Your task to perform on an android device: move an email to a new category in the gmail app Image 0: 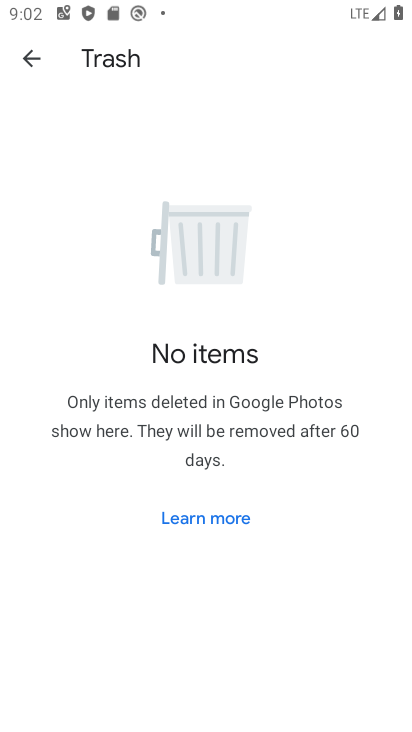
Step 0: press home button
Your task to perform on an android device: move an email to a new category in the gmail app Image 1: 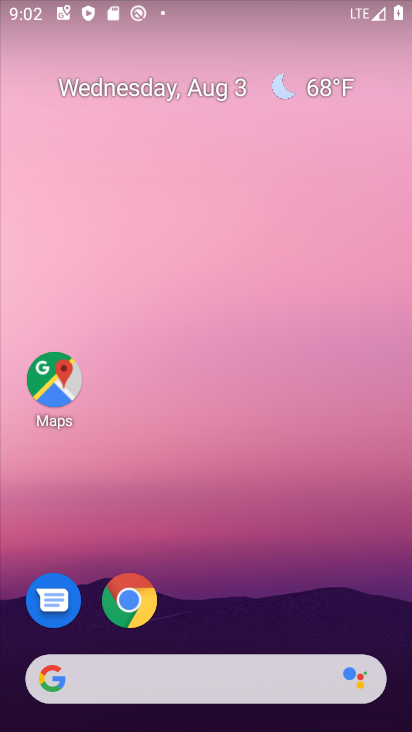
Step 1: drag from (203, 609) to (270, 16)
Your task to perform on an android device: move an email to a new category in the gmail app Image 2: 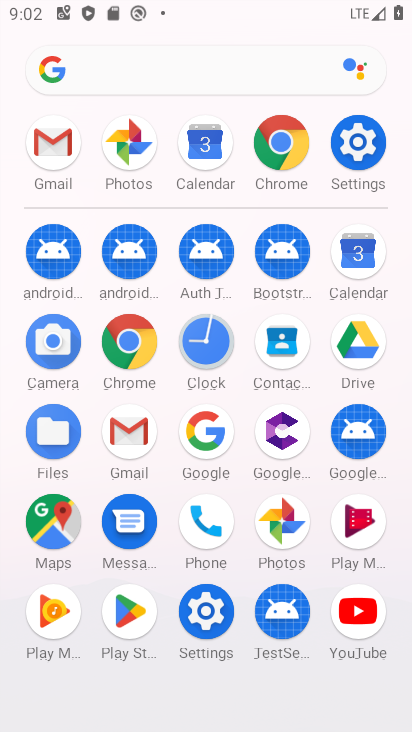
Step 2: click (129, 430)
Your task to perform on an android device: move an email to a new category in the gmail app Image 3: 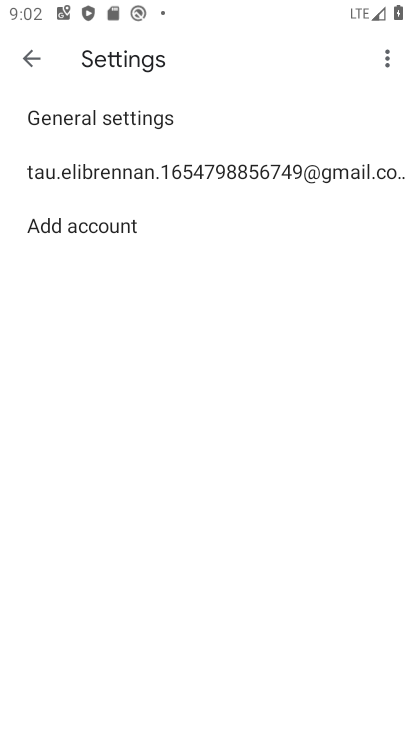
Step 3: click (25, 59)
Your task to perform on an android device: move an email to a new category in the gmail app Image 4: 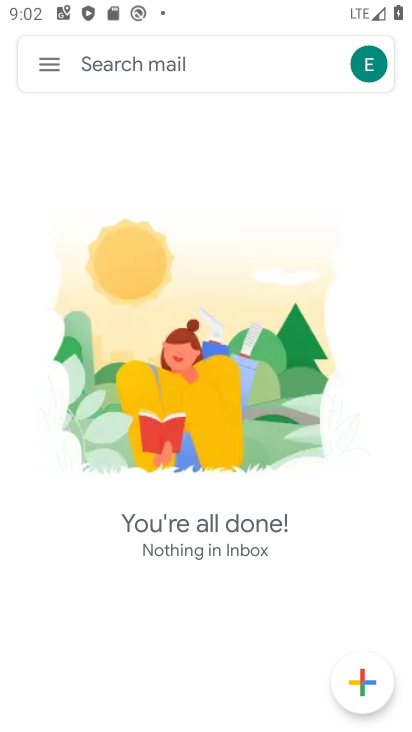
Step 4: click (67, 57)
Your task to perform on an android device: move an email to a new category in the gmail app Image 5: 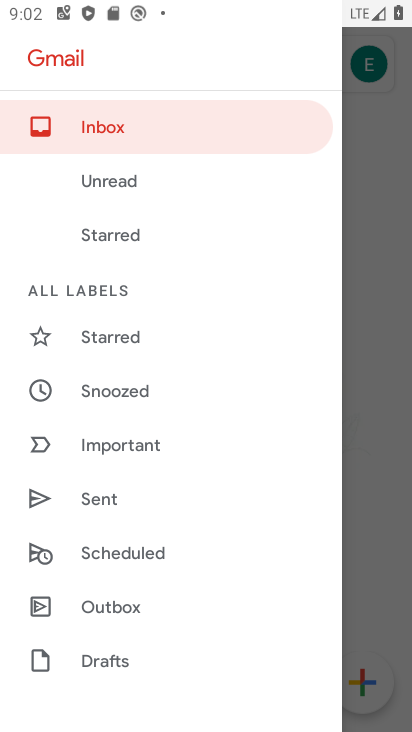
Step 5: click (385, 273)
Your task to perform on an android device: move an email to a new category in the gmail app Image 6: 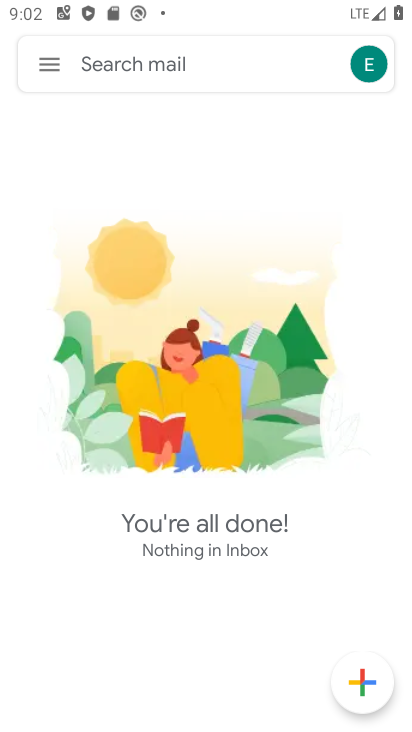
Step 6: task complete